Your task to perform on an android device: see tabs open on other devices in the chrome app Image 0: 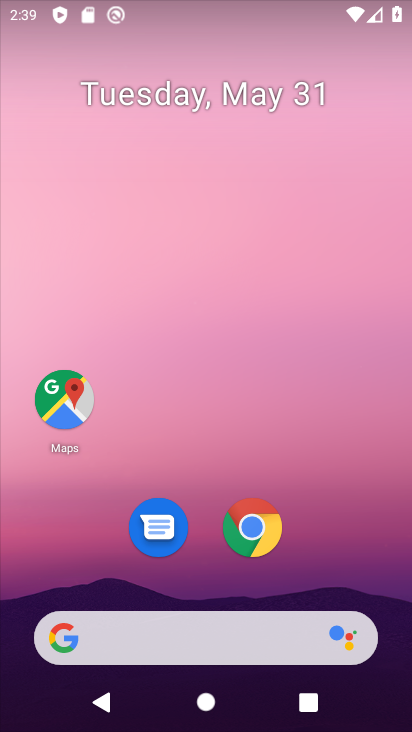
Step 0: click (235, 533)
Your task to perform on an android device: see tabs open on other devices in the chrome app Image 1: 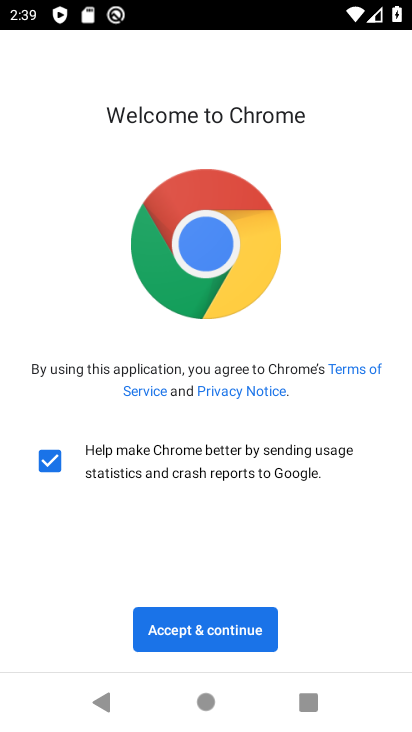
Step 1: click (224, 630)
Your task to perform on an android device: see tabs open on other devices in the chrome app Image 2: 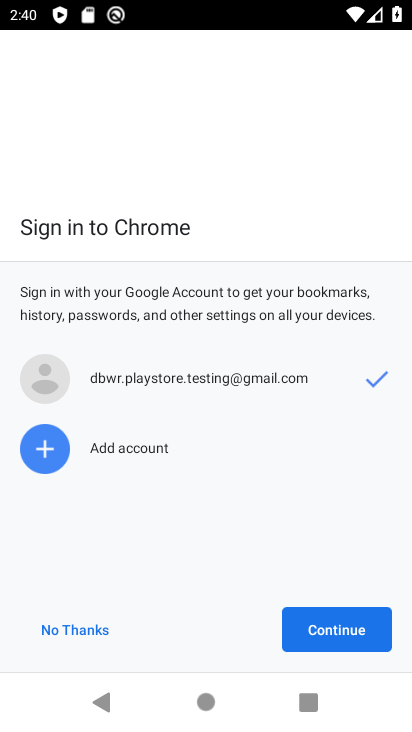
Step 2: click (374, 636)
Your task to perform on an android device: see tabs open on other devices in the chrome app Image 3: 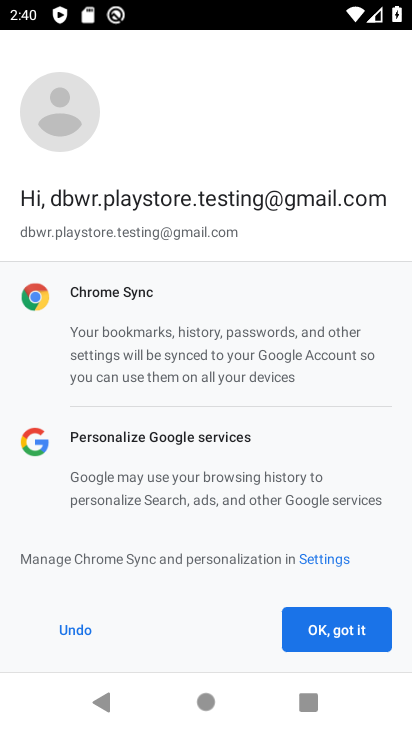
Step 3: click (319, 643)
Your task to perform on an android device: see tabs open on other devices in the chrome app Image 4: 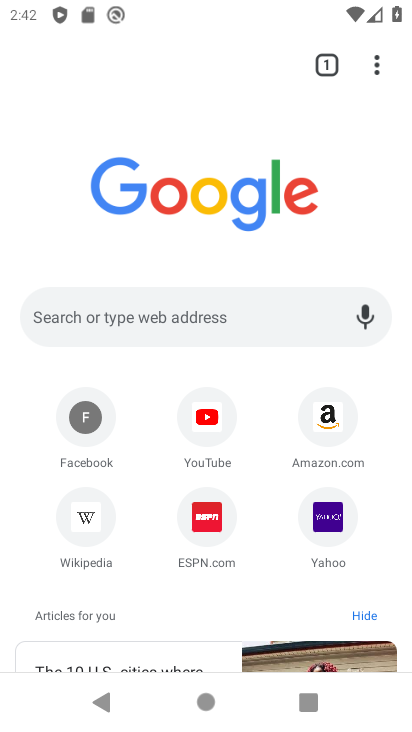
Step 4: click (381, 60)
Your task to perform on an android device: see tabs open on other devices in the chrome app Image 5: 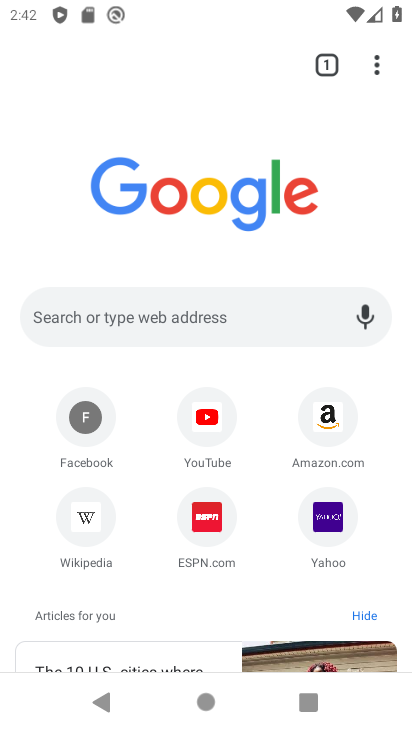
Step 5: click (367, 50)
Your task to perform on an android device: see tabs open on other devices in the chrome app Image 6: 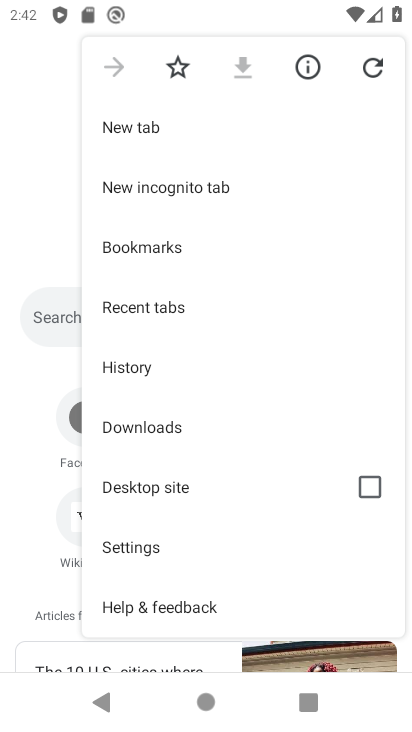
Step 6: click (169, 311)
Your task to perform on an android device: see tabs open on other devices in the chrome app Image 7: 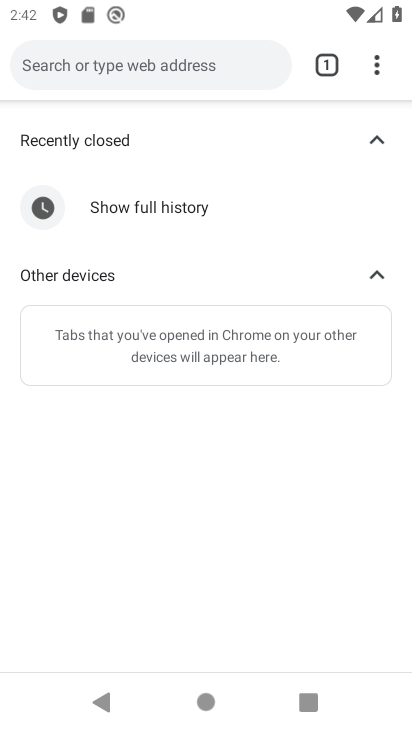
Step 7: task complete